Your task to perform on an android device: stop showing notifications on the lock screen Image 0: 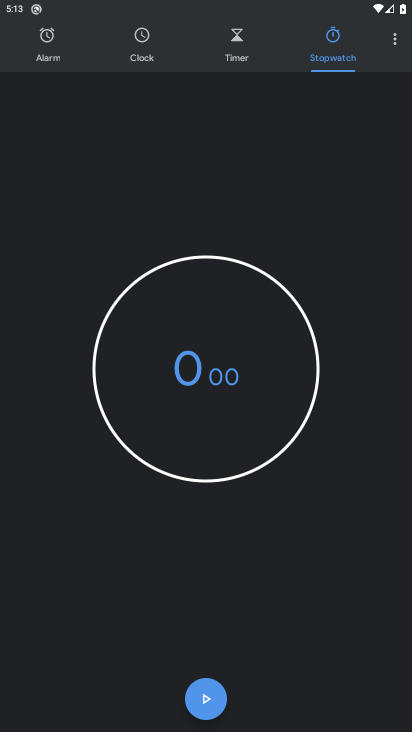
Step 0: press home button
Your task to perform on an android device: stop showing notifications on the lock screen Image 1: 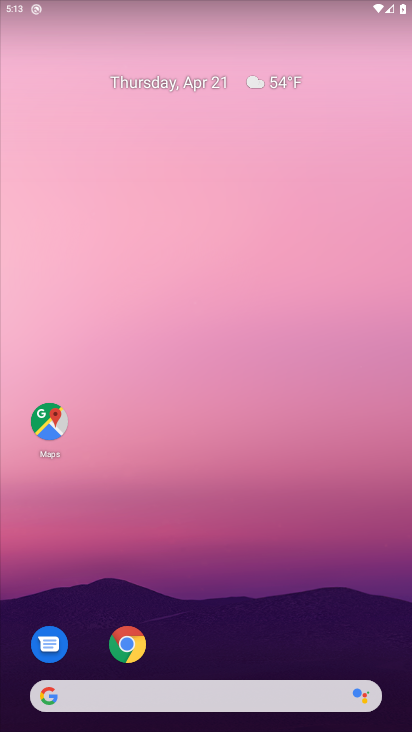
Step 1: drag from (197, 680) to (242, 363)
Your task to perform on an android device: stop showing notifications on the lock screen Image 2: 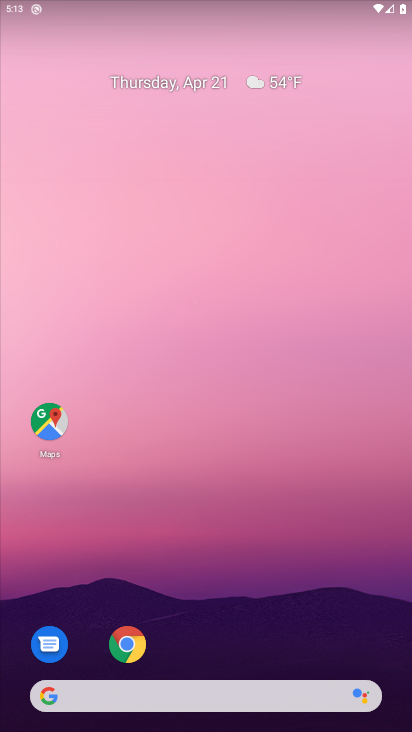
Step 2: drag from (183, 675) to (236, 253)
Your task to perform on an android device: stop showing notifications on the lock screen Image 3: 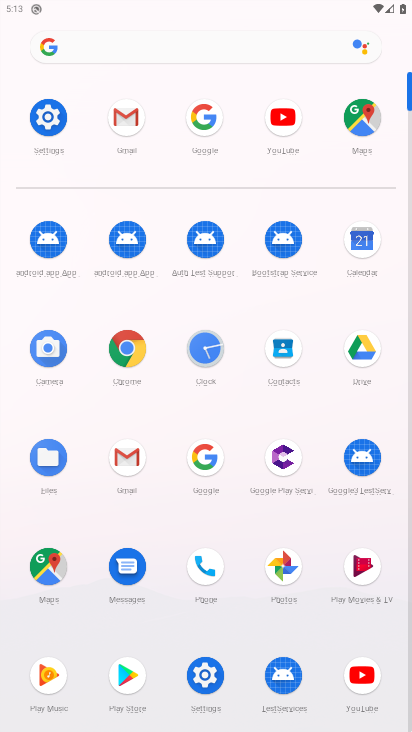
Step 3: click (40, 112)
Your task to perform on an android device: stop showing notifications on the lock screen Image 4: 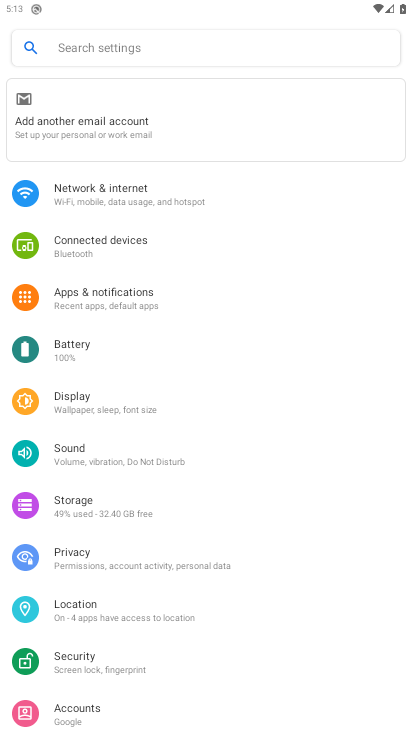
Step 4: click (88, 557)
Your task to perform on an android device: stop showing notifications on the lock screen Image 5: 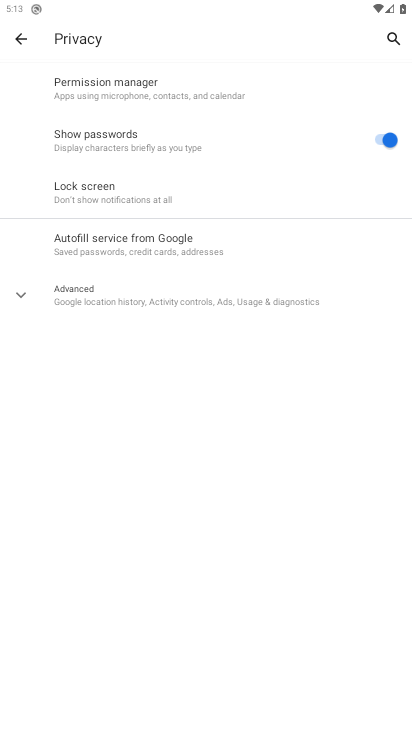
Step 5: click (107, 197)
Your task to perform on an android device: stop showing notifications on the lock screen Image 6: 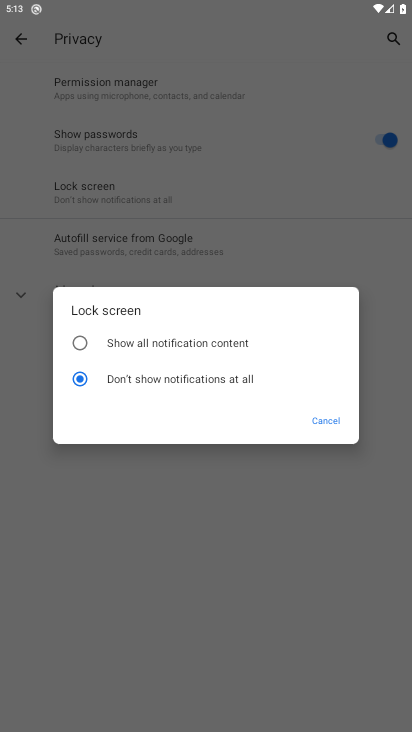
Step 6: click (330, 426)
Your task to perform on an android device: stop showing notifications on the lock screen Image 7: 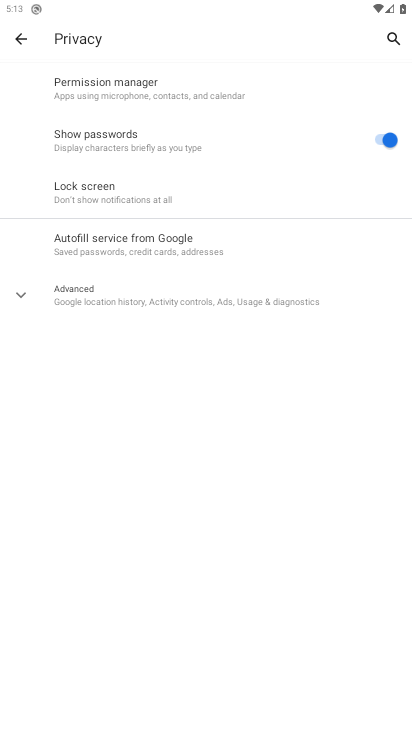
Step 7: task complete